Your task to perform on an android device: Find coffee shops on Maps Image 0: 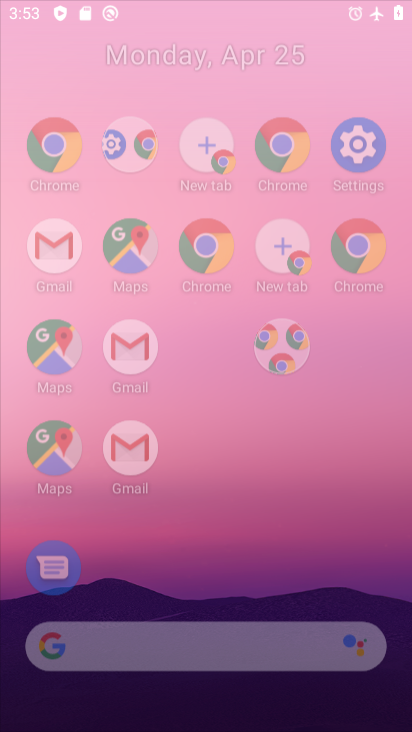
Step 0: drag from (237, 646) to (215, 26)
Your task to perform on an android device: Find coffee shops on Maps Image 1: 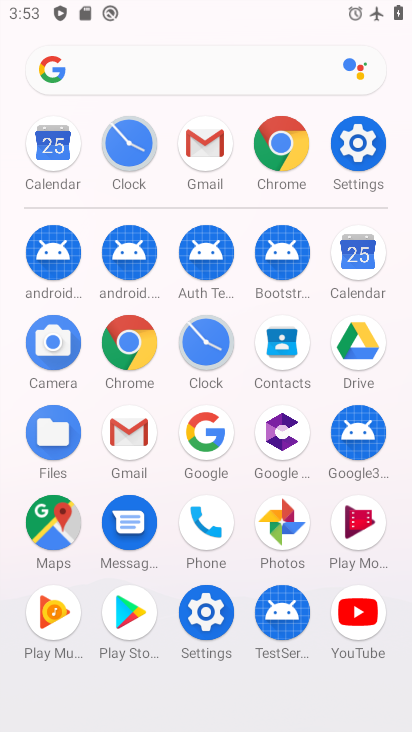
Step 1: click (53, 524)
Your task to perform on an android device: Find coffee shops on Maps Image 2: 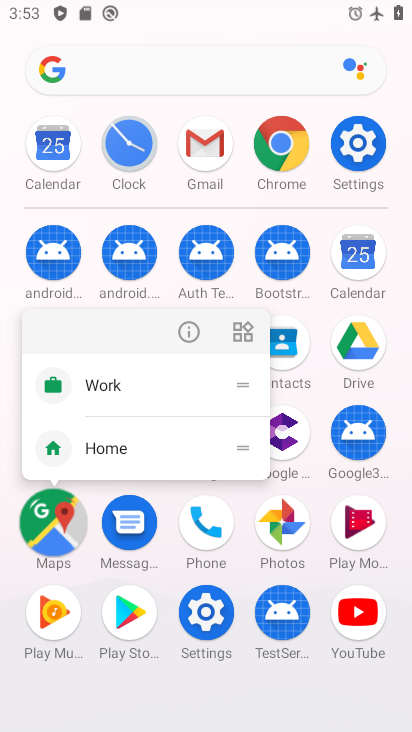
Step 2: click (56, 521)
Your task to perform on an android device: Find coffee shops on Maps Image 3: 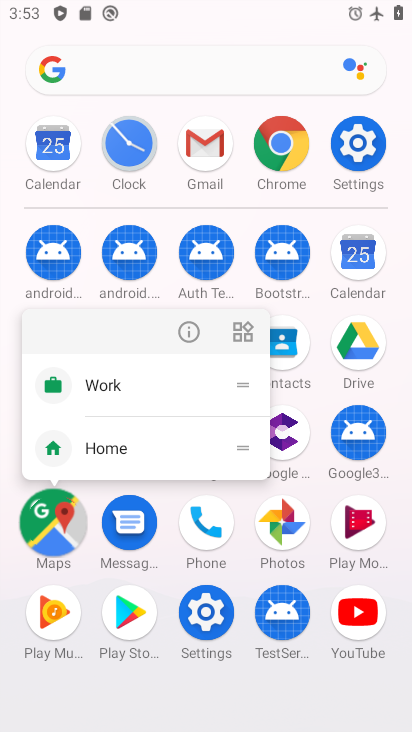
Step 3: click (55, 523)
Your task to perform on an android device: Find coffee shops on Maps Image 4: 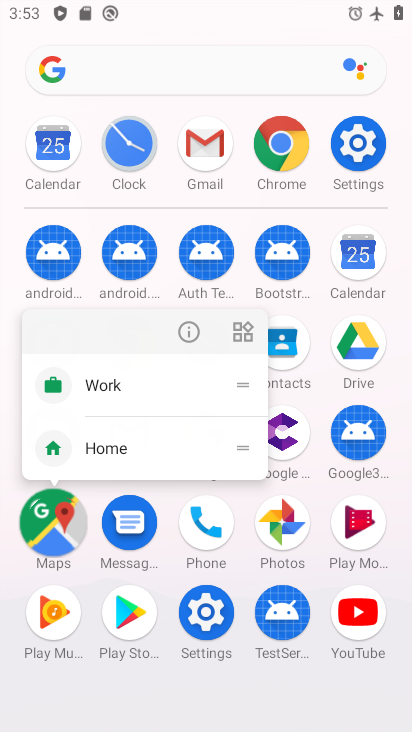
Step 4: click (55, 525)
Your task to perform on an android device: Find coffee shops on Maps Image 5: 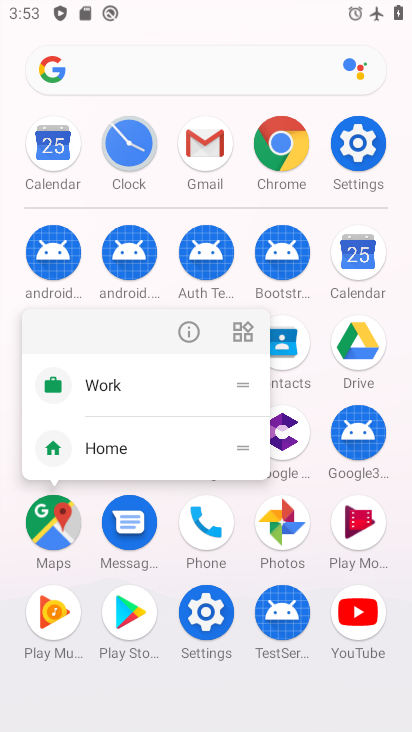
Step 5: click (62, 519)
Your task to perform on an android device: Find coffee shops on Maps Image 6: 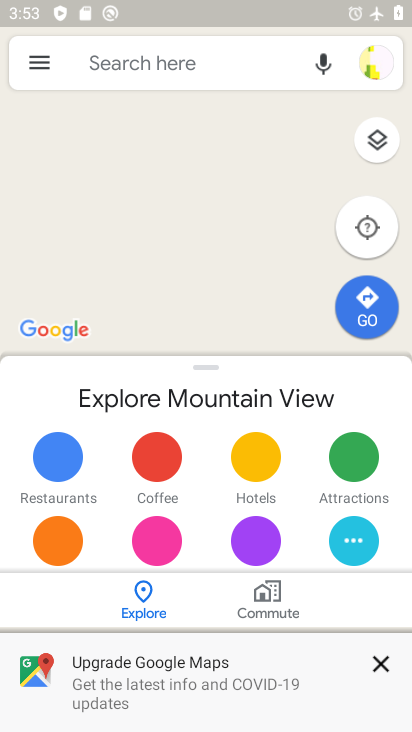
Step 6: click (101, 65)
Your task to perform on an android device: Find coffee shops on Maps Image 7: 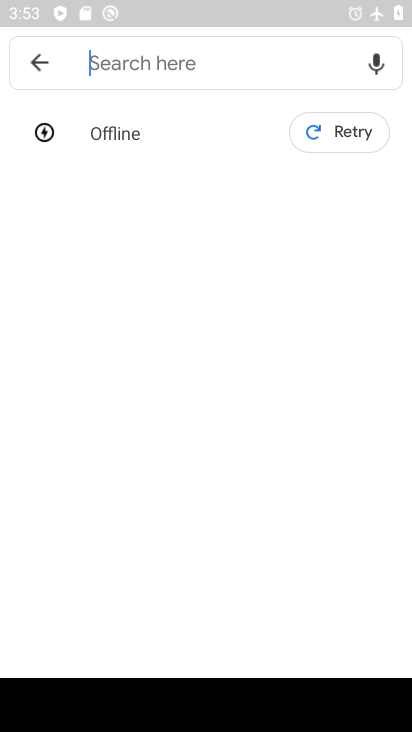
Step 7: type "coffee"
Your task to perform on an android device: Find coffee shops on Maps Image 8: 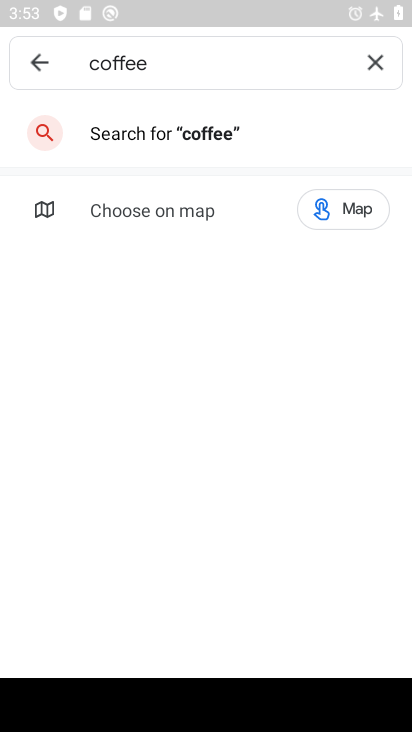
Step 8: click (206, 140)
Your task to perform on an android device: Find coffee shops on Maps Image 9: 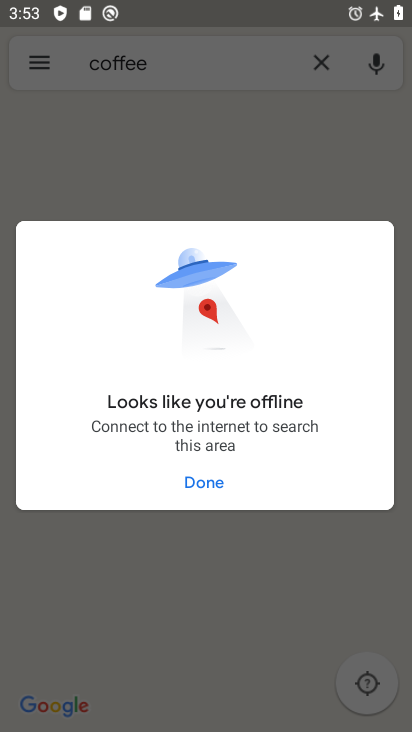
Step 9: task complete